Your task to perform on an android device: turn on priority inbox in the gmail app Image 0: 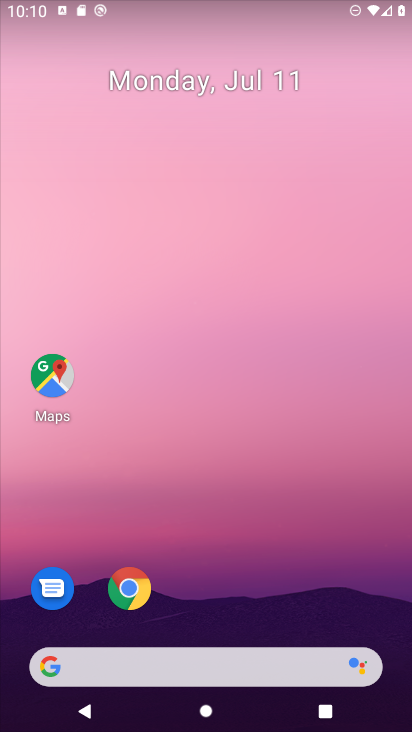
Step 0: click (218, 48)
Your task to perform on an android device: turn on priority inbox in the gmail app Image 1: 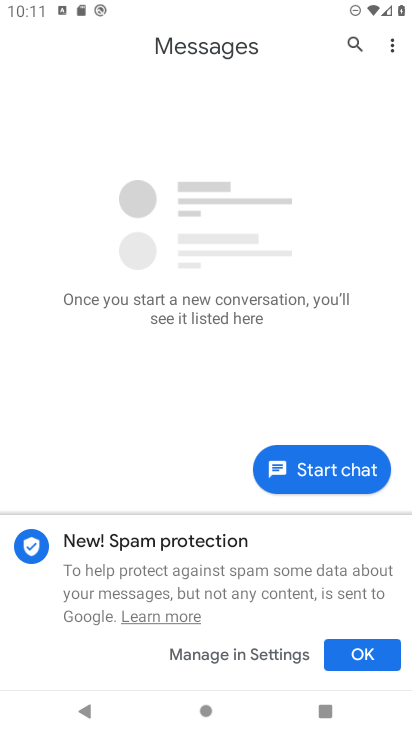
Step 1: press home button
Your task to perform on an android device: turn on priority inbox in the gmail app Image 2: 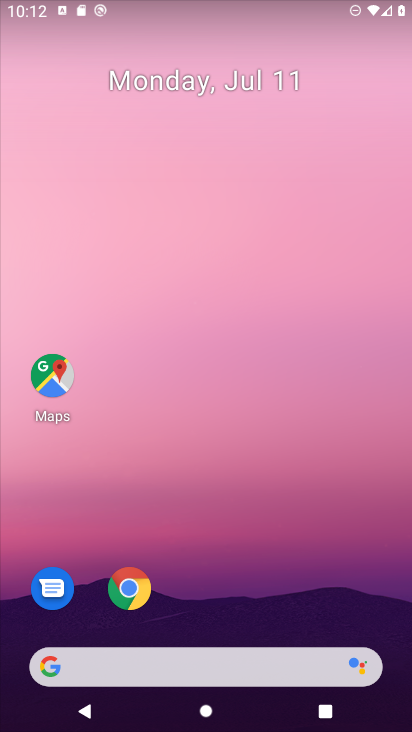
Step 2: drag from (376, 644) to (163, 60)
Your task to perform on an android device: turn on priority inbox in the gmail app Image 3: 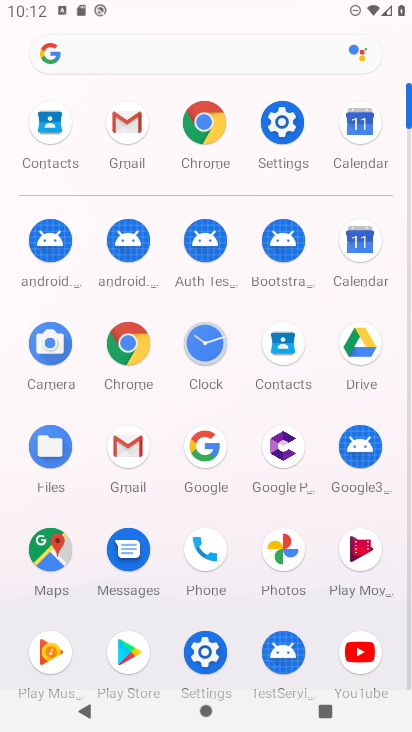
Step 3: click (129, 446)
Your task to perform on an android device: turn on priority inbox in the gmail app Image 4: 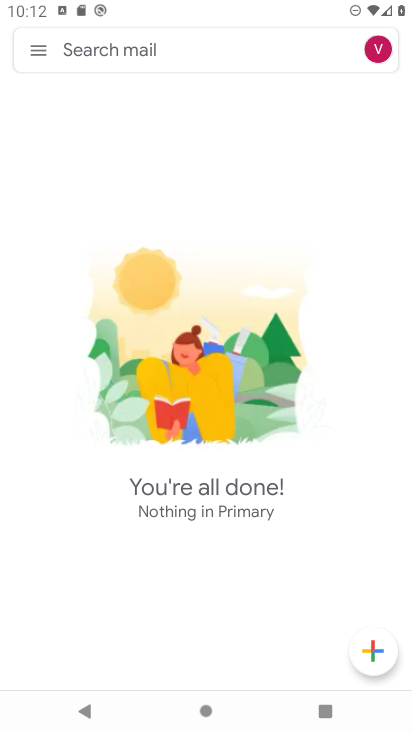
Step 4: click (39, 48)
Your task to perform on an android device: turn on priority inbox in the gmail app Image 5: 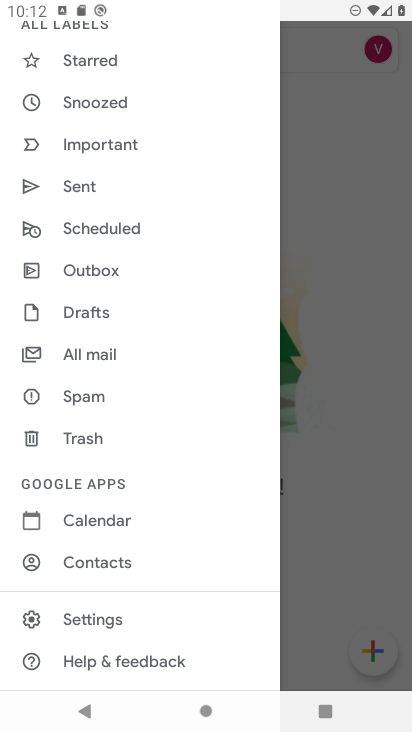
Step 5: click (123, 626)
Your task to perform on an android device: turn on priority inbox in the gmail app Image 6: 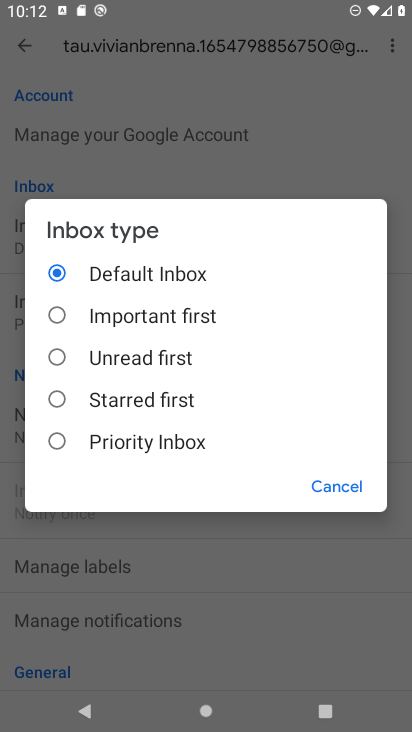
Step 6: click (61, 441)
Your task to perform on an android device: turn on priority inbox in the gmail app Image 7: 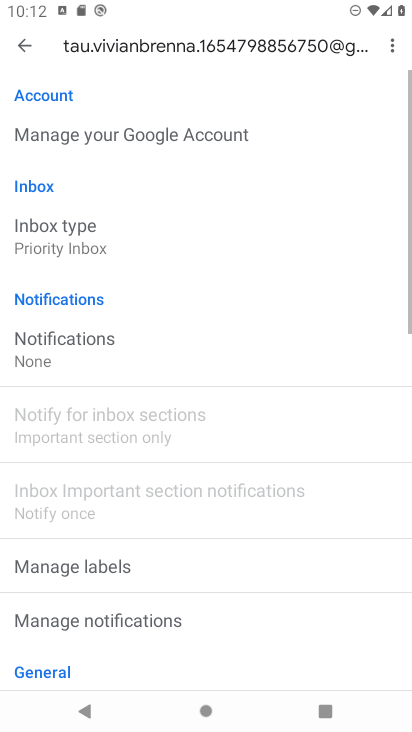
Step 7: task complete